Your task to perform on an android device: When is my next meeting? Image 0: 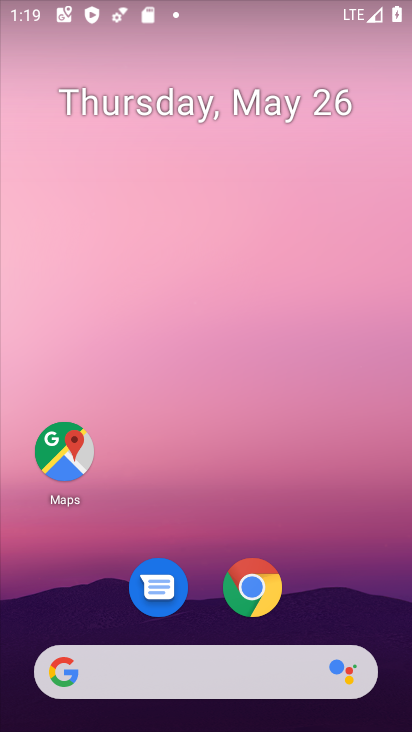
Step 0: drag from (321, 575) to (338, 296)
Your task to perform on an android device: When is my next meeting? Image 1: 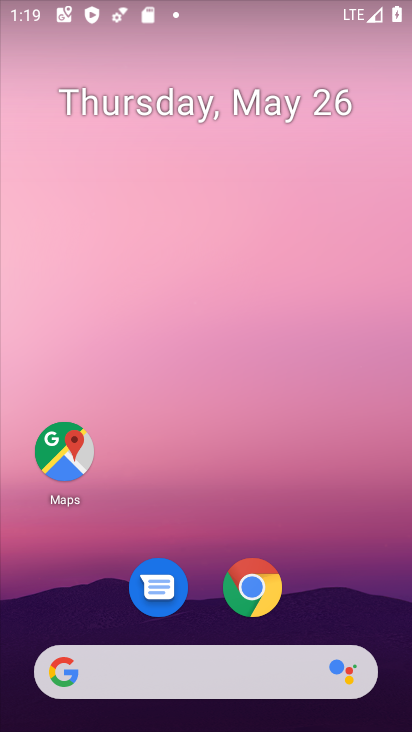
Step 1: drag from (330, 593) to (368, 134)
Your task to perform on an android device: When is my next meeting? Image 2: 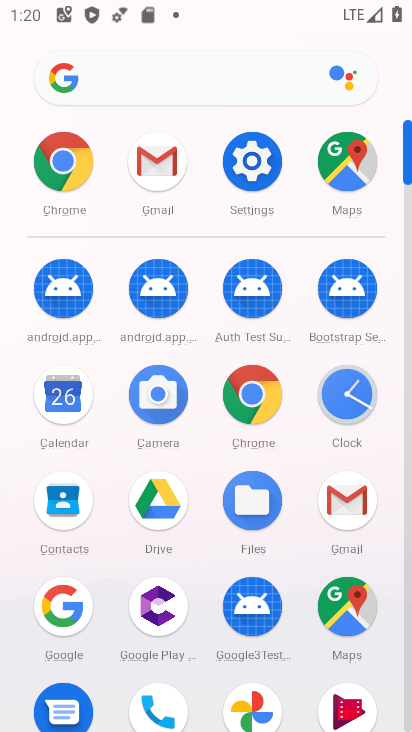
Step 2: click (71, 388)
Your task to perform on an android device: When is my next meeting? Image 3: 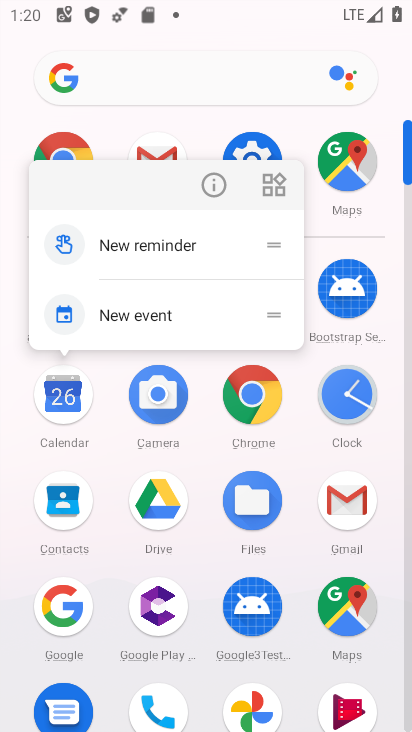
Step 3: click (70, 410)
Your task to perform on an android device: When is my next meeting? Image 4: 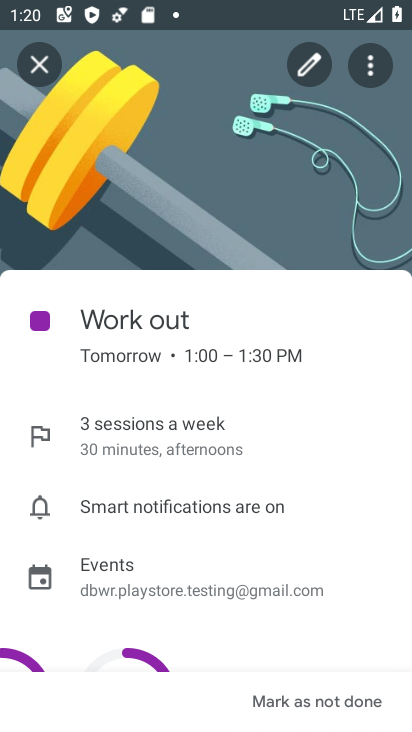
Step 4: task complete